Your task to perform on an android device: Open the phone app and click the voicemail tab. Image 0: 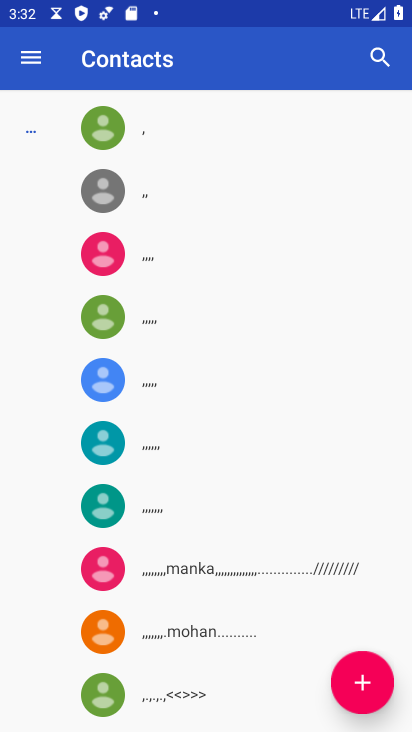
Step 0: press home button
Your task to perform on an android device: Open the phone app and click the voicemail tab. Image 1: 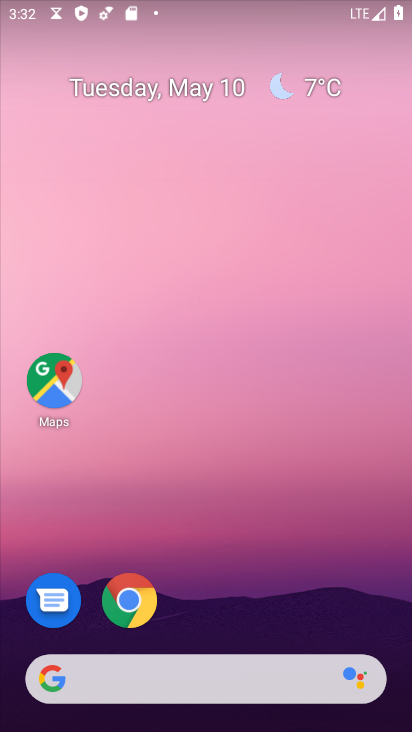
Step 1: click (114, 583)
Your task to perform on an android device: Open the phone app and click the voicemail tab. Image 2: 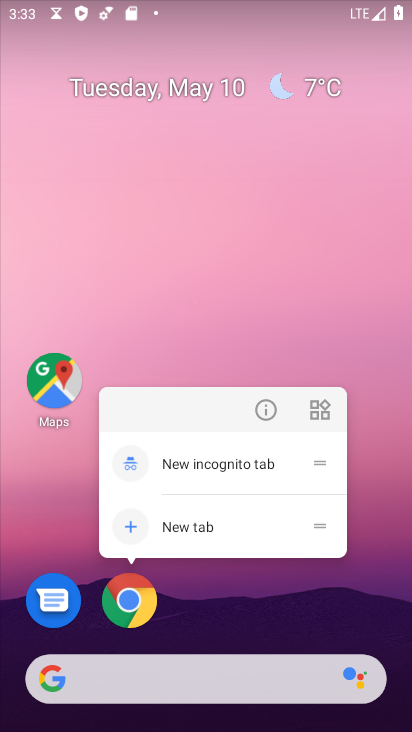
Step 2: click (114, 583)
Your task to perform on an android device: Open the phone app and click the voicemail tab. Image 3: 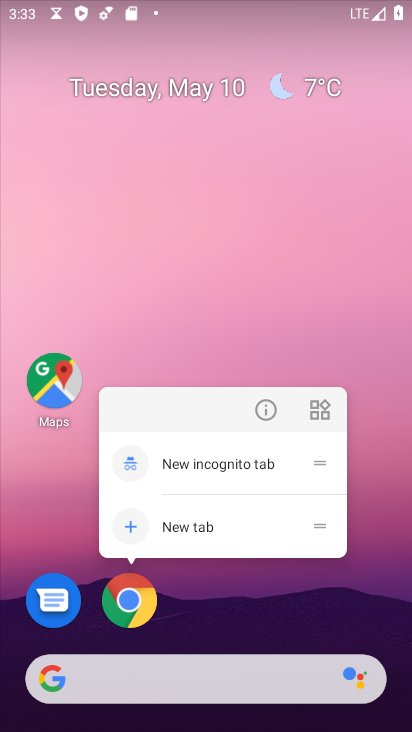
Step 3: click (129, 599)
Your task to perform on an android device: Open the phone app and click the voicemail tab. Image 4: 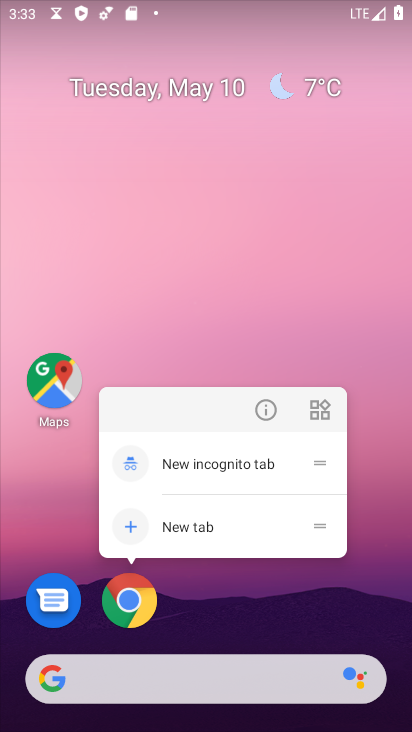
Step 4: click (134, 596)
Your task to perform on an android device: Open the phone app and click the voicemail tab. Image 5: 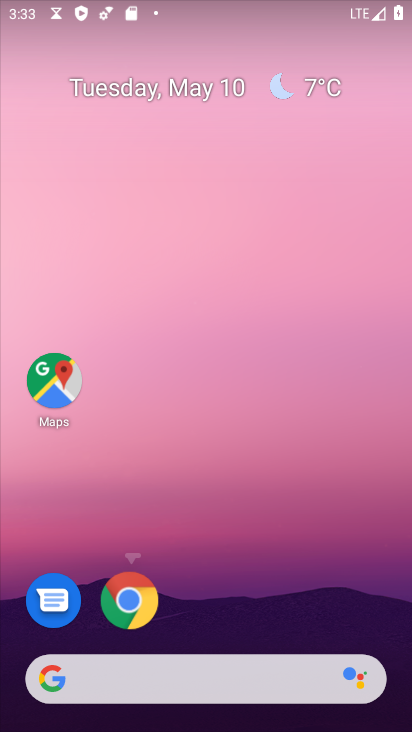
Step 5: click (134, 596)
Your task to perform on an android device: Open the phone app and click the voicemail tab. Image 6: 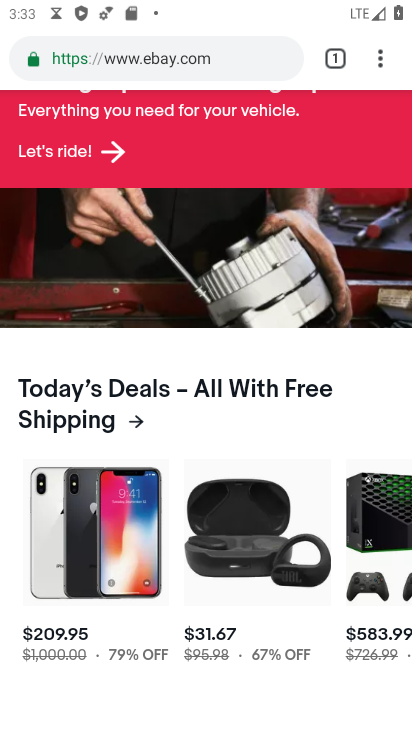
Step 6: task complete